Your task to perform on an android device: Open the phone app and click the voicemail tab. Image 0: 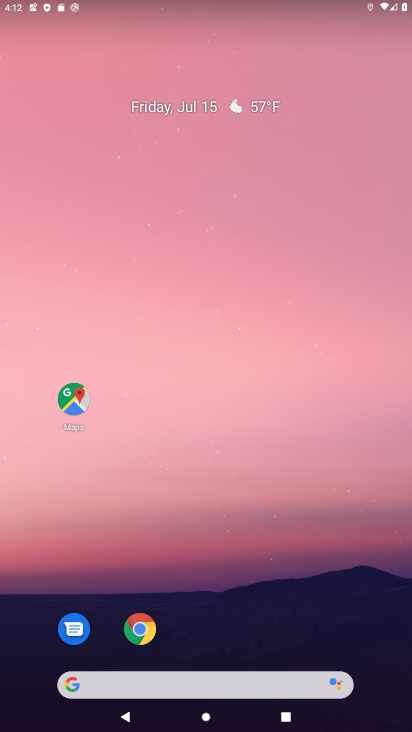
Step 0: press home button
Your task to perform on an android device: Open the phone app and click the voicemail tab. Image 1: 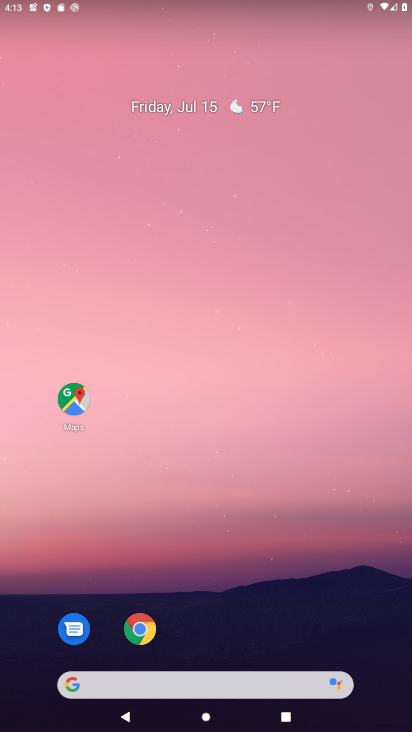
Step 1: drag from (273, 651) to (337, 45)
Your task to perform on an android device: Open the phone app and click the voicemail tab. Image 2: 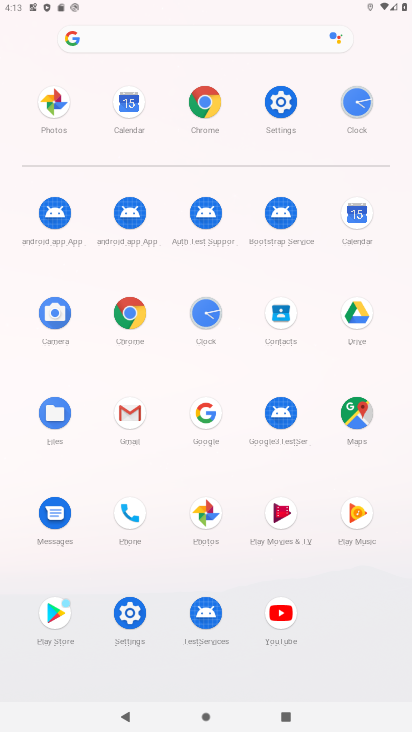
Step 2: click (130, 520)
Your task to perform on an android device: Open the phone app and click the voicemail tab. Image 3: 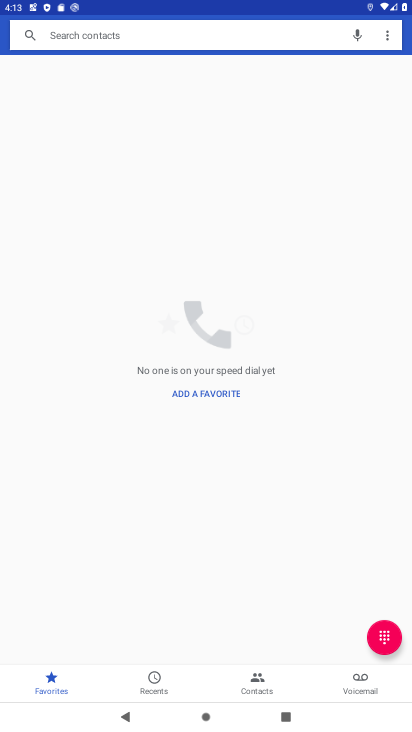
Step 3: click (351, 687)
Your task to perform on an android device: Open the phone app and click the voicemail tab. Image 4: 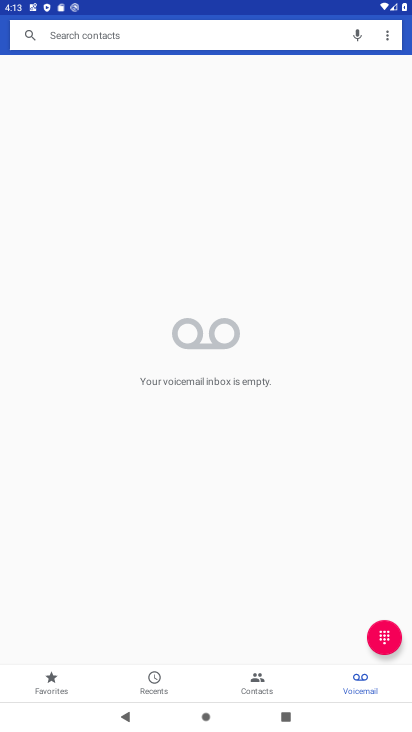
Step 4: task complete